Your task to perform on an android device: Add energizer triple a to the cart on target.com Image 0: 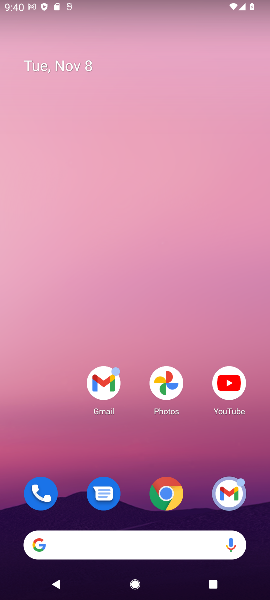
Step 0: click (171, 496)
Your task to perform on an android device: Add energizer triple a to the cart on target.com Image 1: 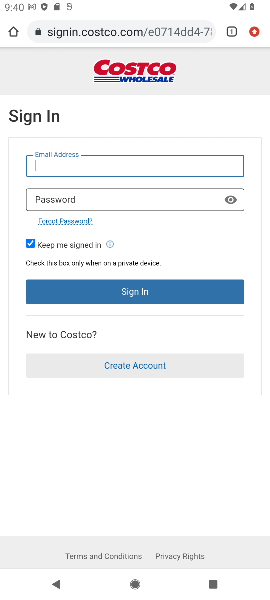
Step 1: click (96, 29)
Your task to perform on an android device: Add energizer triple a to the cart on target.com Image 2: 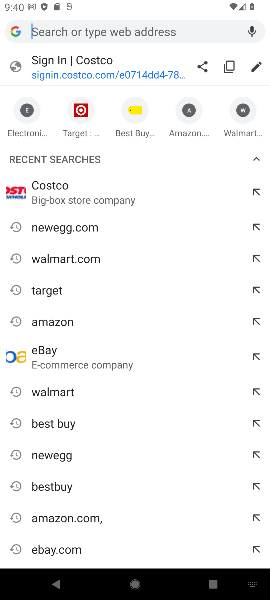
Step 2: click (75, 129)
Your task to perform on an android device: Add energizer triple a to the cart on target.com Image 3: 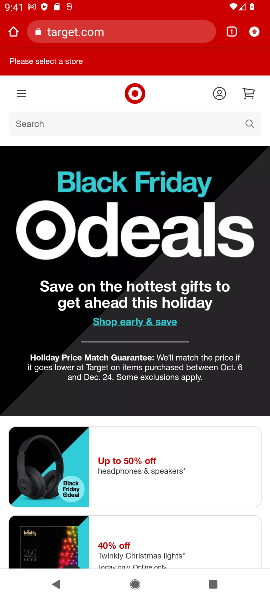
Step 3: click (252, 128)
Your task to perform on an android device: Add energizer triple a to the cart on target.com Image 4: 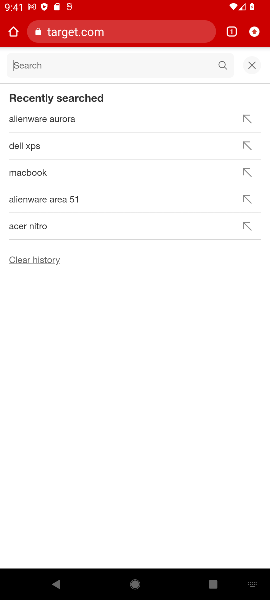
Step 4: type " energizer triple a"
Your task to perform on an android device: Add energizer triple a to the cart on target.com Image 5: 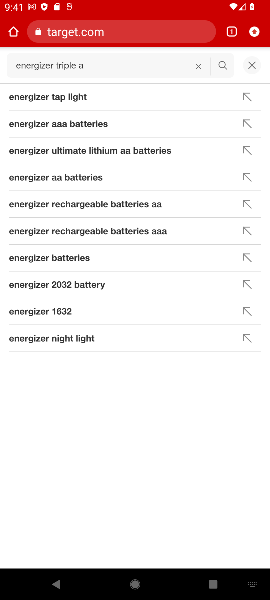
Step 5: click (221, 63)
Your task to perform on an android device: Add energizer triple a to the cart on target.com Image 6: 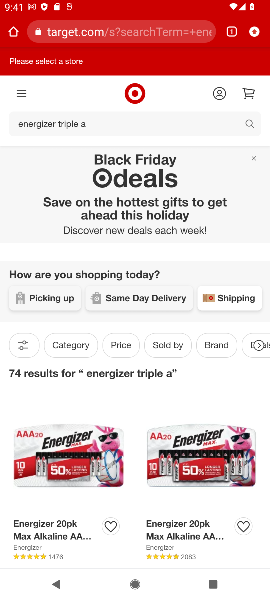
Step 6: drag from (78, 451) to (93, 315)
Your task to perform on an android device: Add energizer triple a to the cart on target.com Image 7: 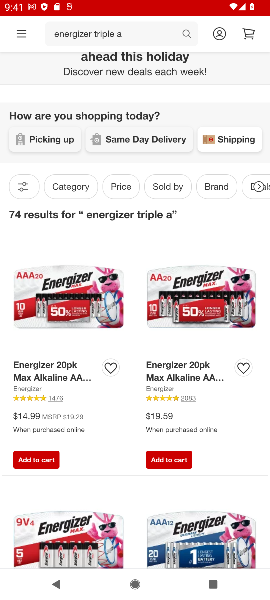
Step 7: click (50, 330)
Your task to perform on an android device: Add energizer triple a to the cart on target.com Image 8: 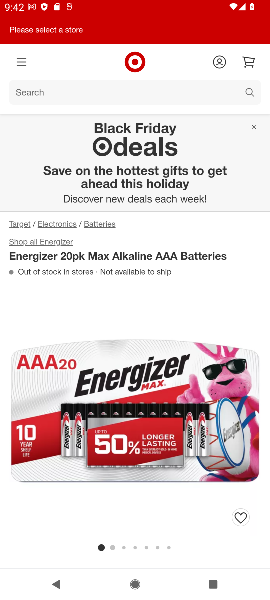
Step 8: drag from (88, 382) to (91, 263)
Your task to perform on an android device: Add energizer triple a to the cart on target.com Image 9: 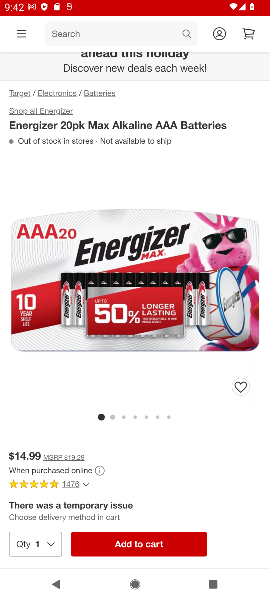
Step 9: drag from (136, 476) to (142, 397)
Your task to perform on an android device: Add energizer triple a to the cart on target.com Image 10: 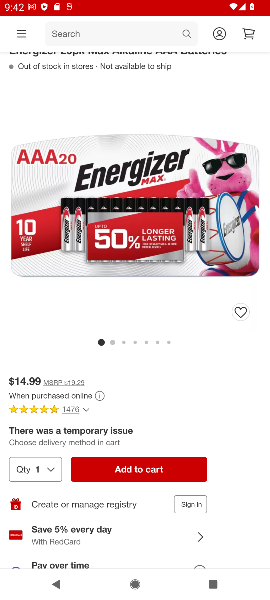
Step 10: click (131, 466)
Your task to perform on an android device: Add energizer triple a to the cart on target.com Image 11: 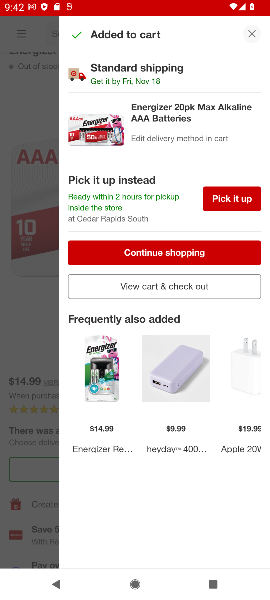
Step 11: task complete